Your task to perform on an android device: Go to calendar. Show me events next week Image 0: 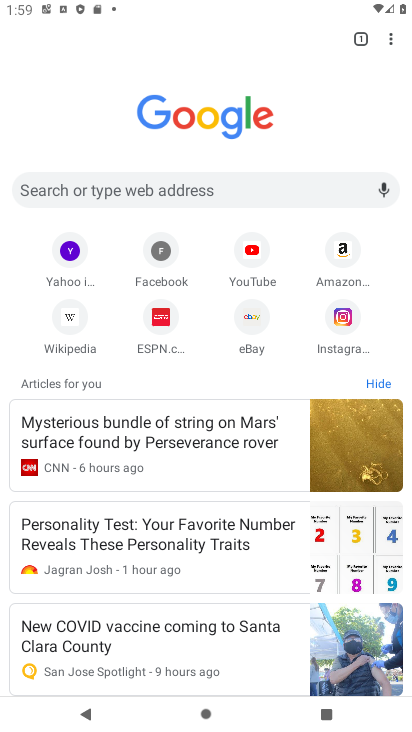
Step 0: press home button
Your task to perform on an android device: Go to calendar. Show me events next week Image 1: 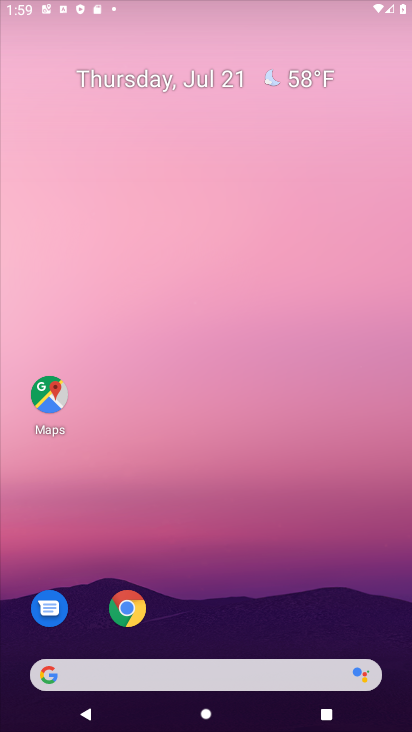
Step 1: drag from (407, 664) to (140, 4)
Your task to perform on an android device: Go to calendar. Show me events next week Image 2: 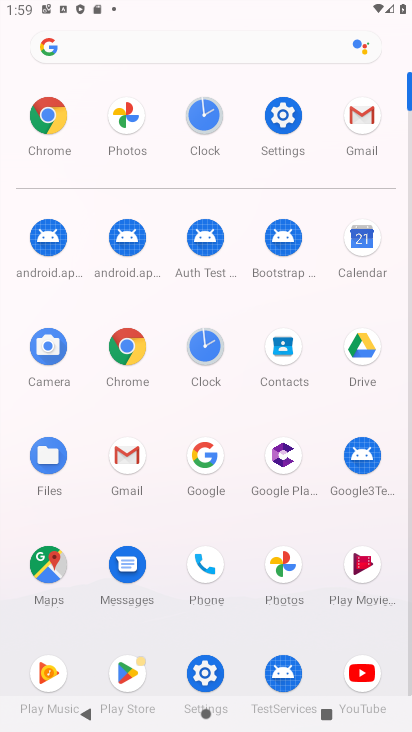
Step 2: click (366, 238)
Your task to perform on an android device: Go to calendar. Show me events next week Image 3: 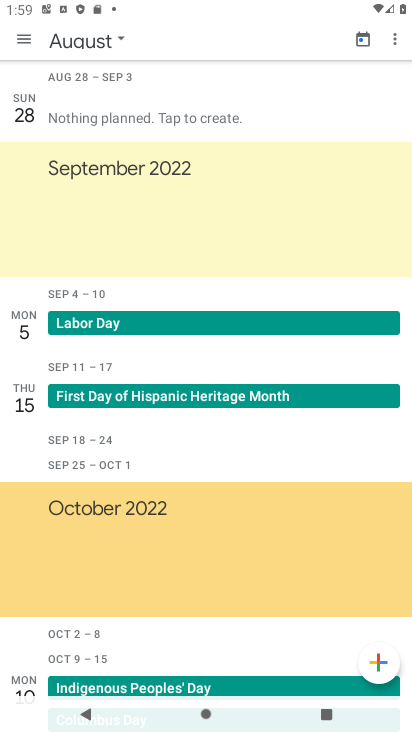
Step 3: task complete